Your task to perform on an android device: Go to internet settings Image 0: 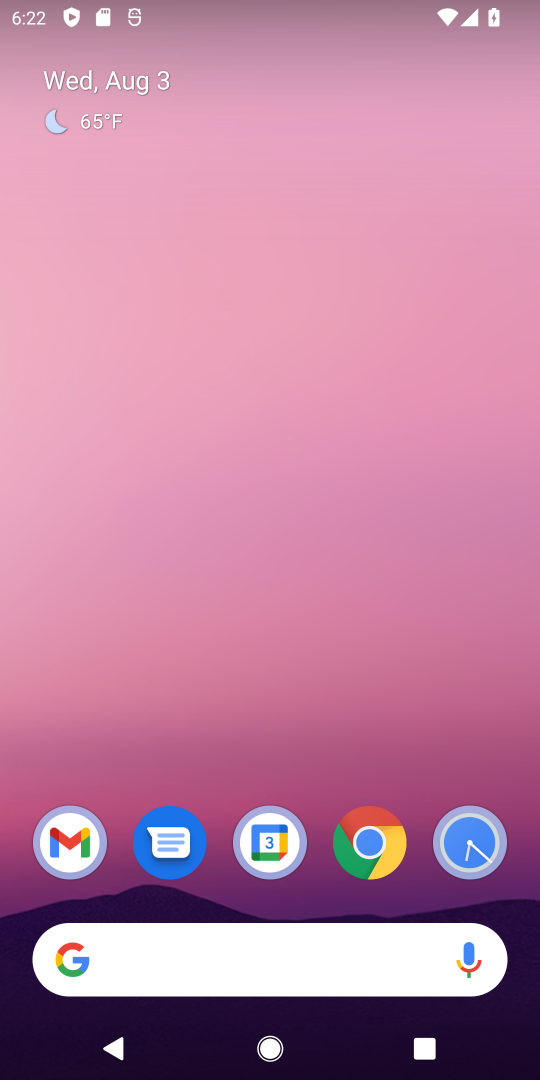
Step 0: drag from (164, 520) to (243, 22)
Your task to perform on an android device: Go to internet settings Image 1: 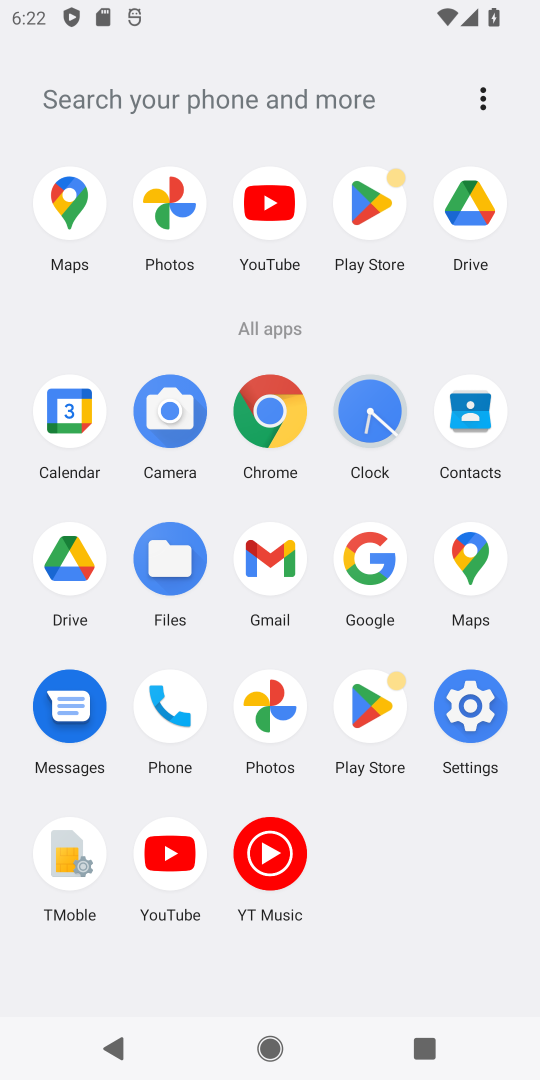
Step 1: click (469, 714)
Your task to perform on an android device: Go to internet settings Image 2: 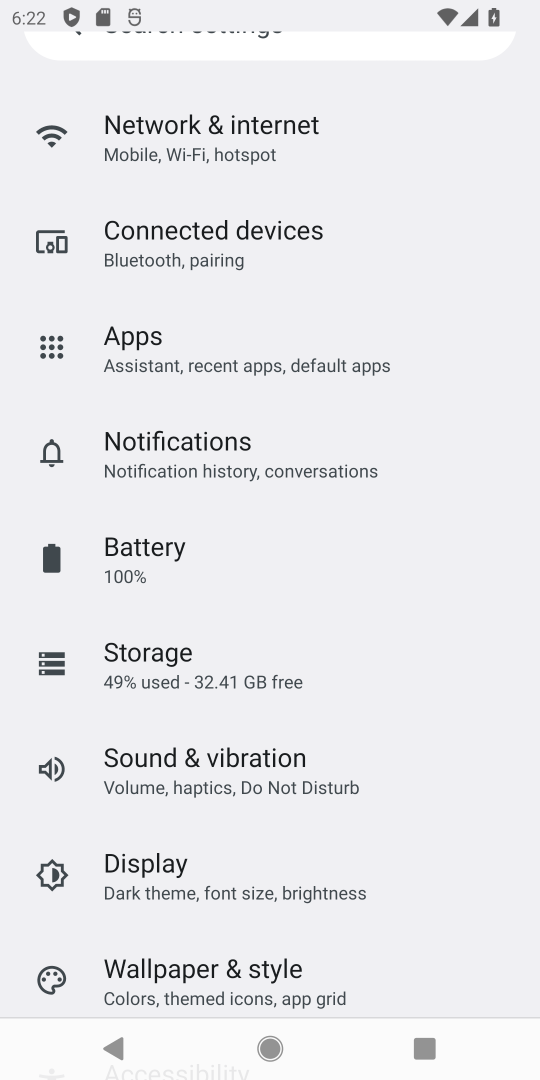
Step 2: click (390, 116)
Your task to perform on an android device: Go to internet settings Image 3: 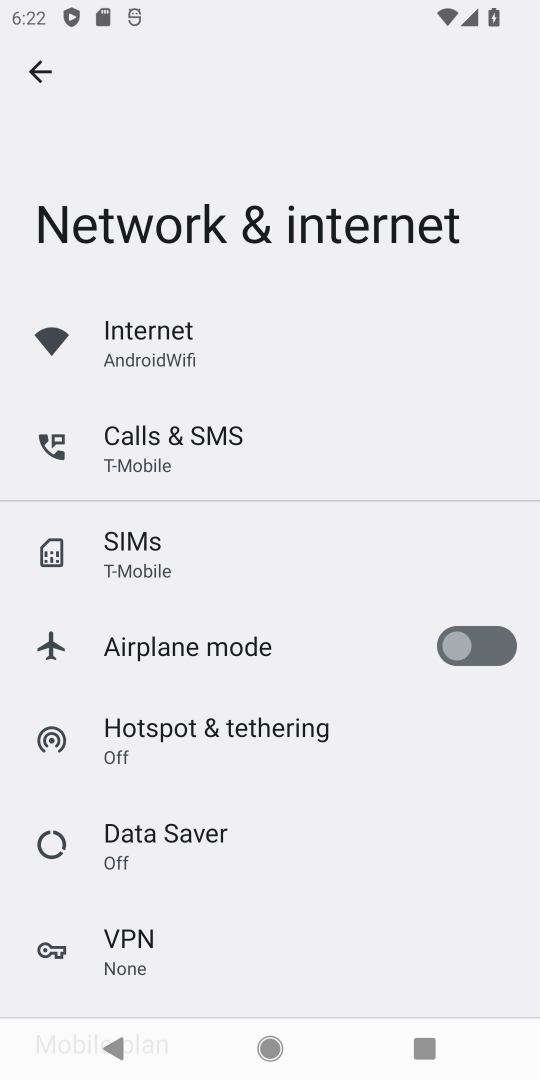
Step 3: task complete